Your task to perform on an android device: toggle priority inbox in the gmail app Image 0: 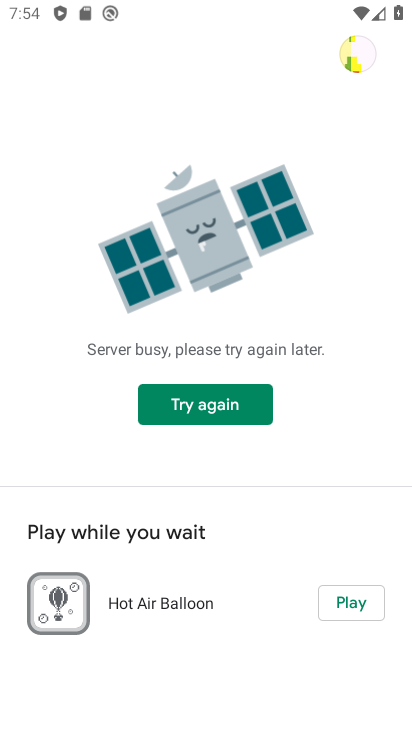
Step 0: press home button
Your task to perform on an android device: toggle priority inbox in the gmail app Image 1: 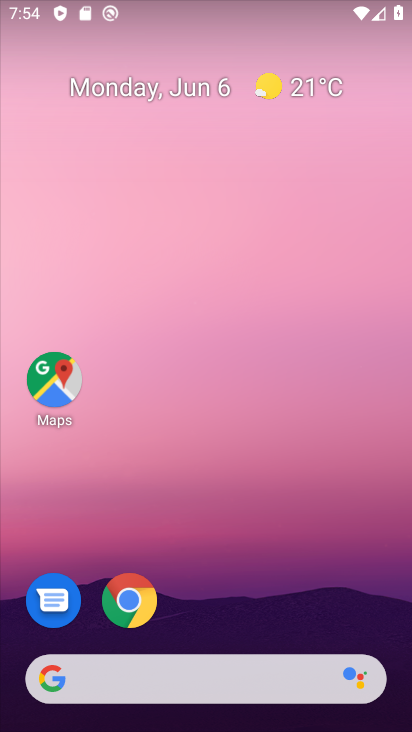
Step 1: drag from (216, 619) to (267, 39)
Your task to perform on an android device: toggle priority inbox in the gmail app Image 2: 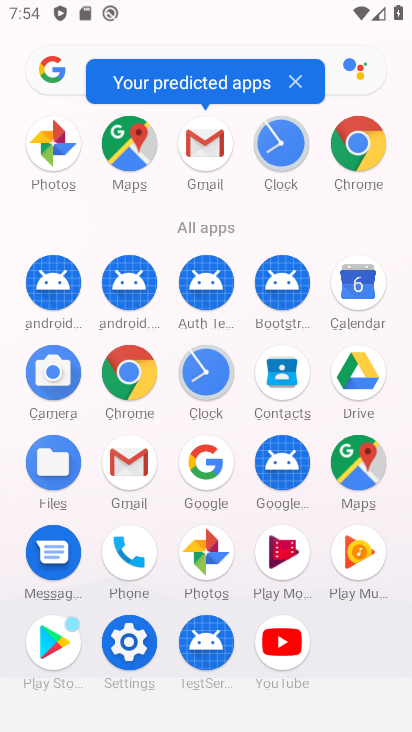
Step 2: click (125, 469)
Your task to perform on an android device: toggle priority inbox in the gmail app Image 3: 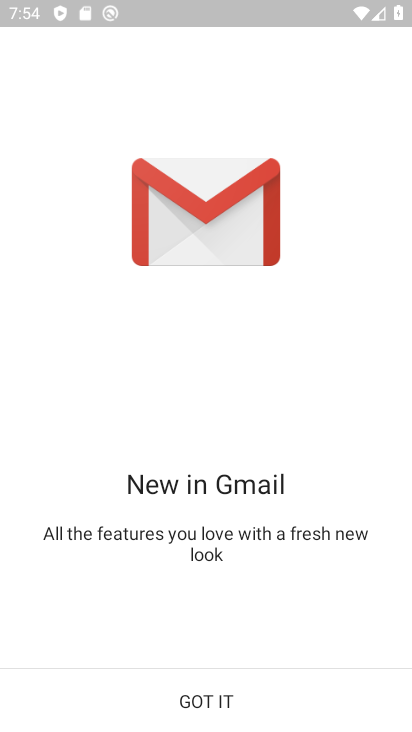
Step 3: click (211, 703)
Your task to perform on an android device: toggle priority inbox in the gmail app Image 4: 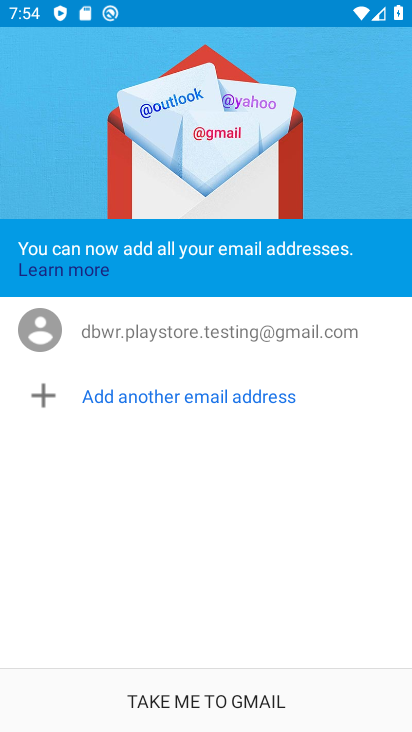
Step 4: click (211, 703)
Your task to perform on an android device: toggle priority inbox in the gmail app Image 5: 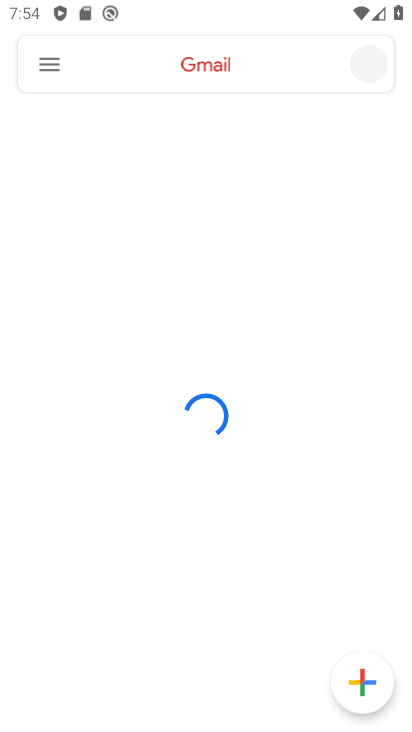
Step 5: click (46, 68)
Your task to perform on an android device: toggle priority inbox in the gmail app Image 6: 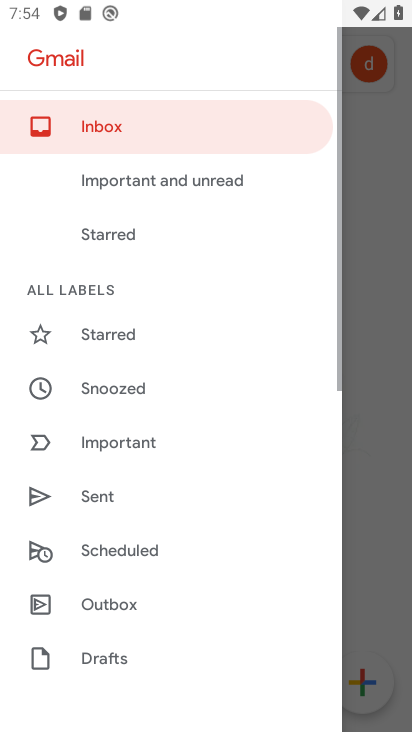
Step 6: click (107, 297)
Your task to perform on an android device: toggle priority inbox in the gmail app Image 7: 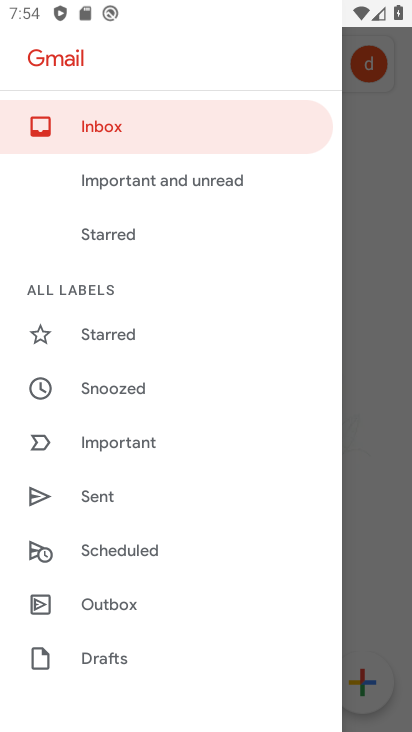
Step 7: drag from (121, 479) to (223, 32)
Your task to perform on an android device: toggle priority inbox in the gmail app Image 8: 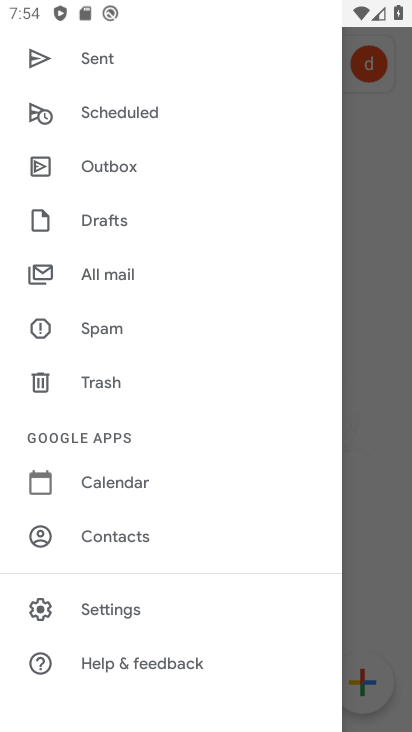
Step 8: click (115, 608)
Your task to perform on an android device: toggle priority inbox in the gmail app Image 9: 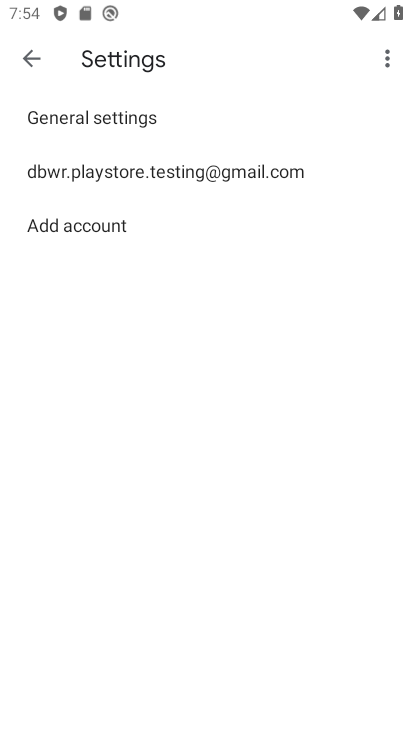
Step 9: click (155, 179)
Your task to perform on an android device: toggle priority inbox in the gmail app Image 10: 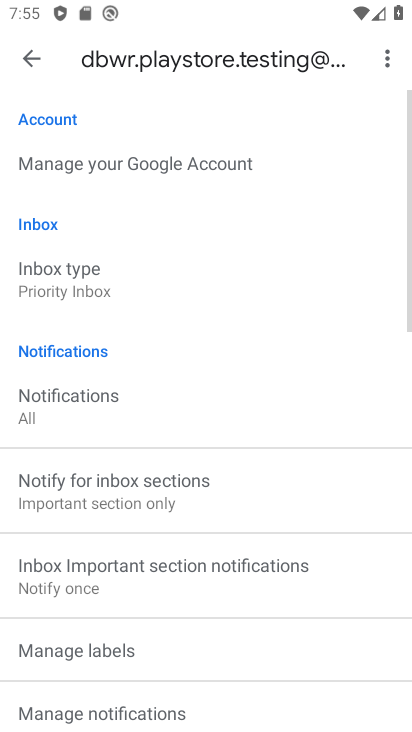
Step 10: click (80, 280)
Your task to perform on an android device: toggle priority inbox in the gmail app Image 11: 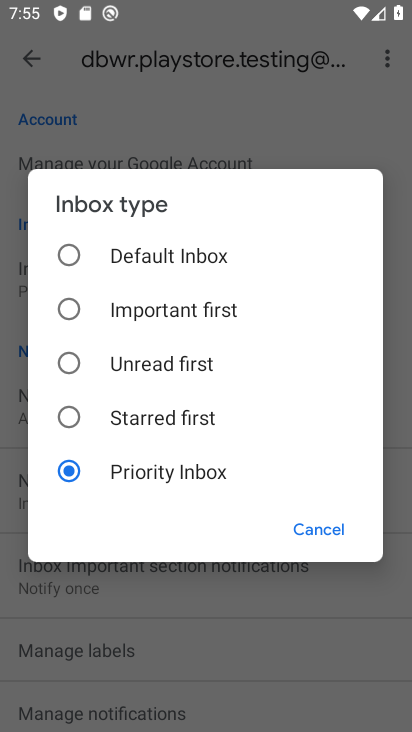
Step 11: click (91, 269)
Your task to perform on an android device: toggle priority inbox in the gmail app Image 12: 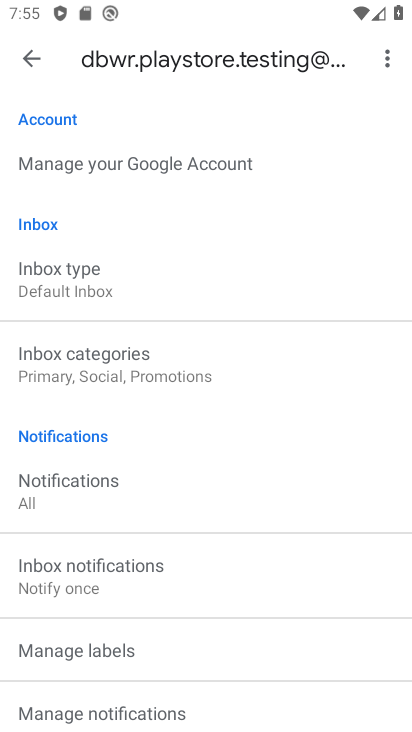
Step 12: task complete